Your task to perform on an android device: Go to internet settings Image 0: 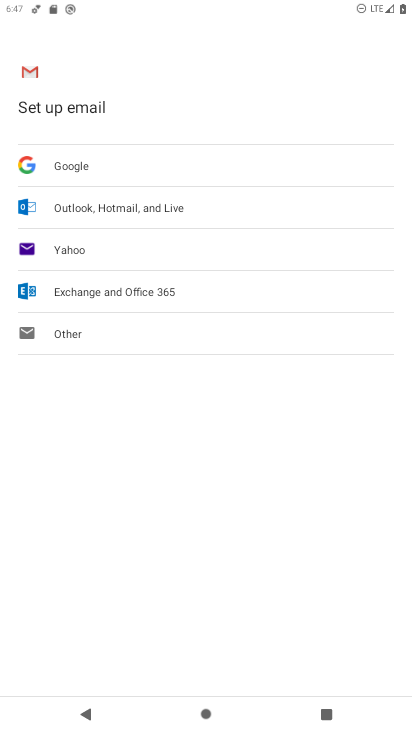
Step 0: press home button
Your task to perform on an android device: Go to internet settings Image 1: 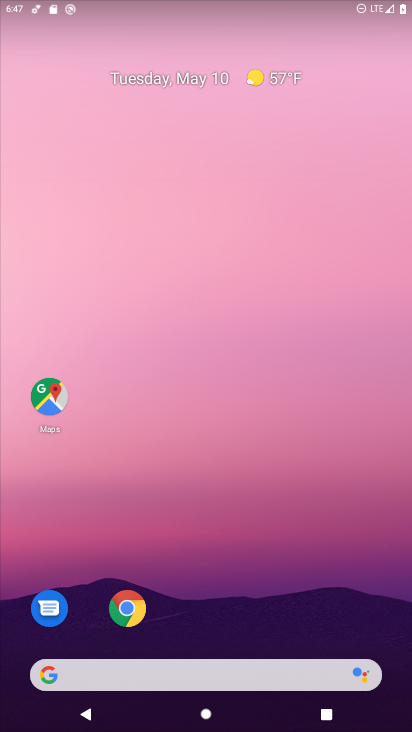
Step 1: drag from (324, 608) to (265, 45)
Your task to perform on an android device: Go to internet settings Image 2: 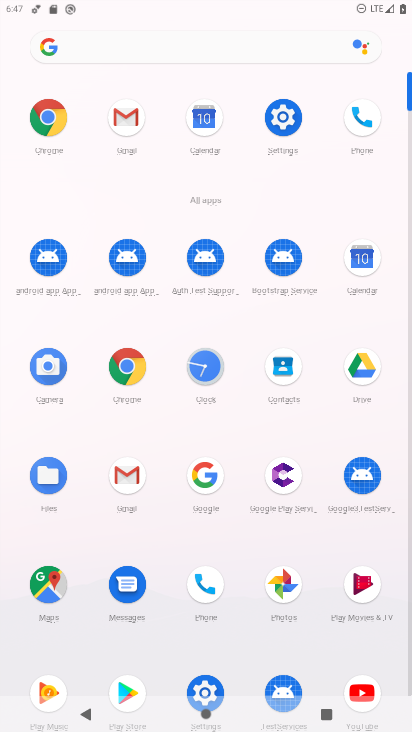
Step 2: click (288, 118)
Your task to perform on an android device: Go to internet settings Image 3: 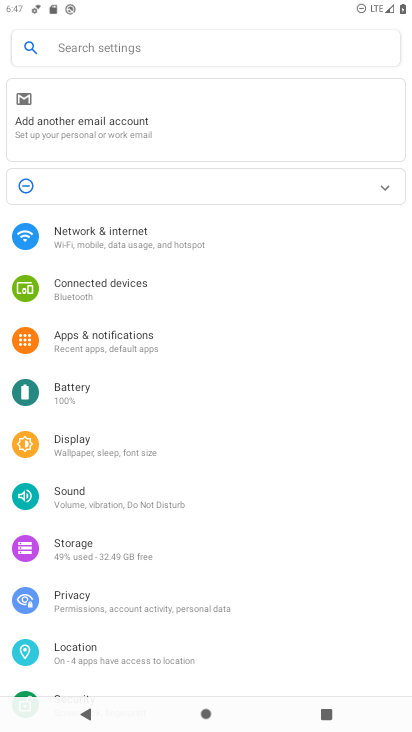
Step 3: click (166, 251)
Your task to perform on an android device: Go to internet settings Image 4: 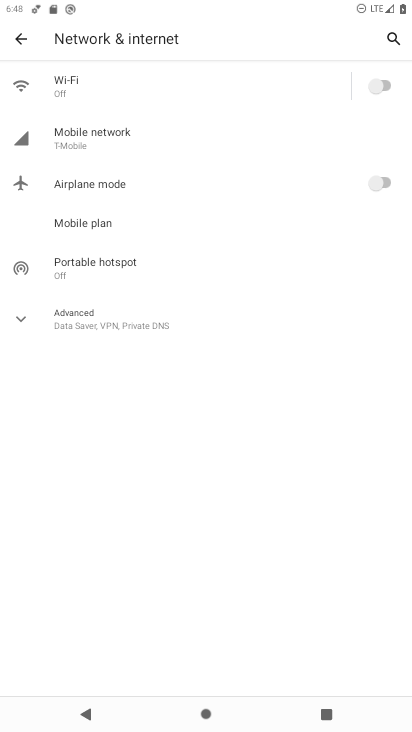
Step 4: task complete